Your task to perform on an android device: Is it going to rain this weekend? Image 0: 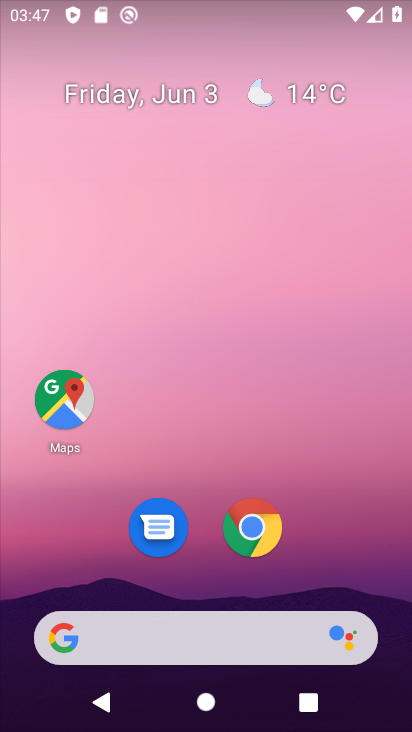
Step 0: drag from (318, 578) to (396, 26)
Your task to perform on an android device: Is it going to rain this weekend? Image 1: 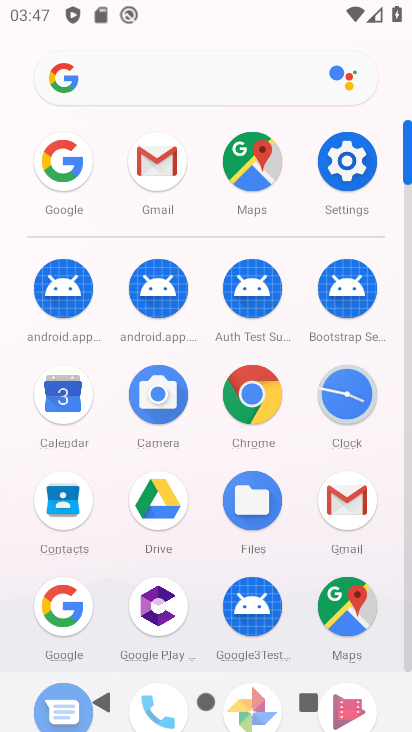
Step 1: click (56, 162)
Your task to perform on an android device: Is it going to rain this weekend? Image 2: 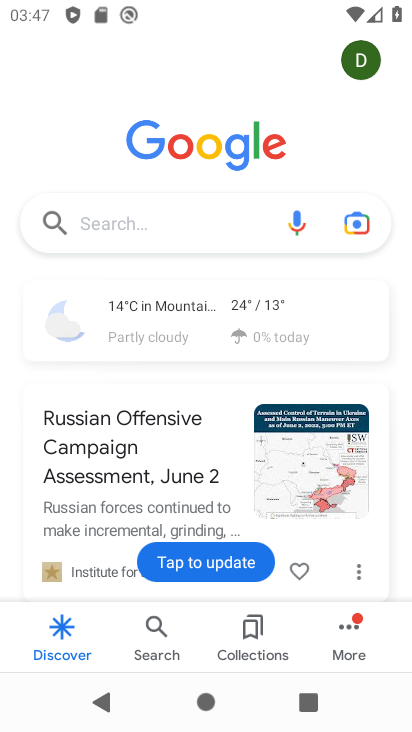
Step 2: click (198, 233)
Your task to perform on an android device: Is it going to rain this weekend? Image 3: 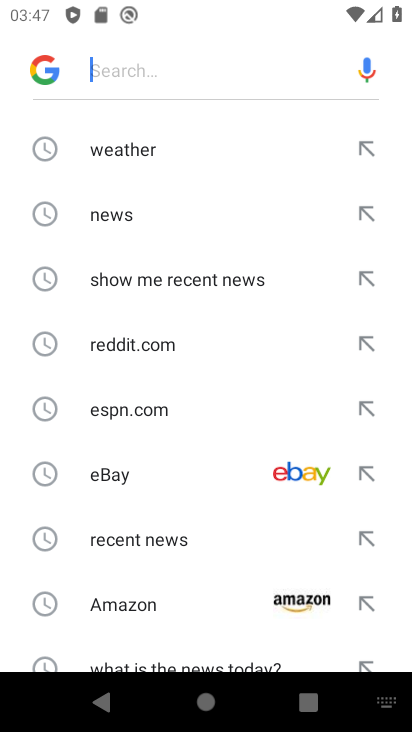
Step 3: type "Is it going to rain this weekend?"
Your task to perform on an android device: Is it going to rain this weekend? Image 4: 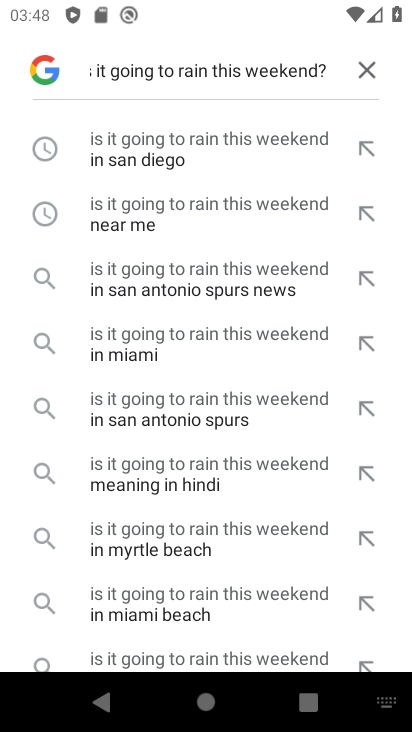
Step 4: click (236, 148)
Your task to perform on an android device: Is it going to rain this weekend? Image 5: 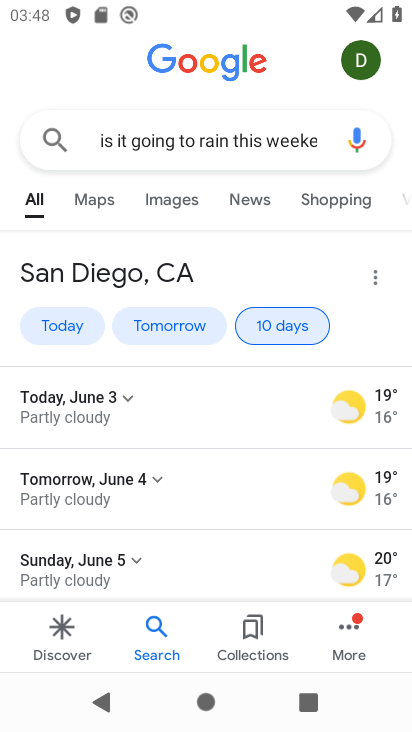
Step 5: task complete